Your task to perform on an android device: What is the recent news? Image 0: 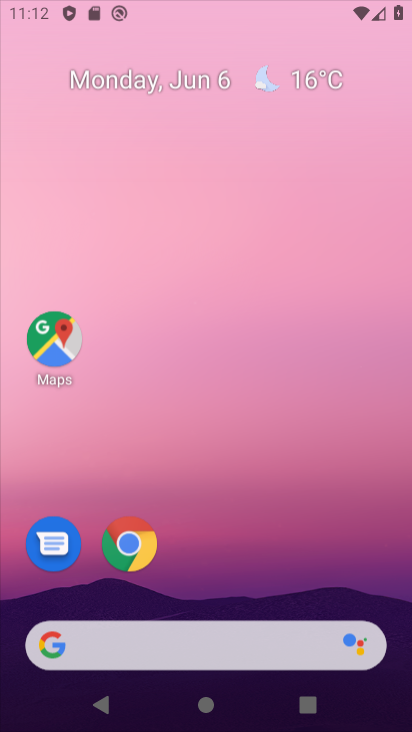
Step 0: press back button
Your task to perform on an android device: What is the recent news? Image 1: 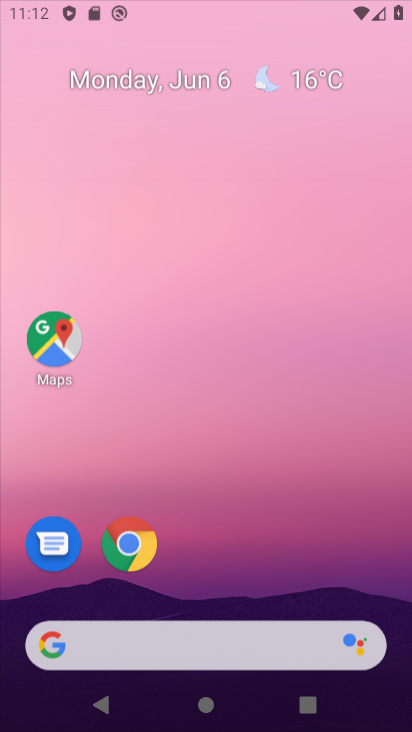
Step 1: click (340, 110)
Your task to perform on an android device: What is the recent news? Image 2: 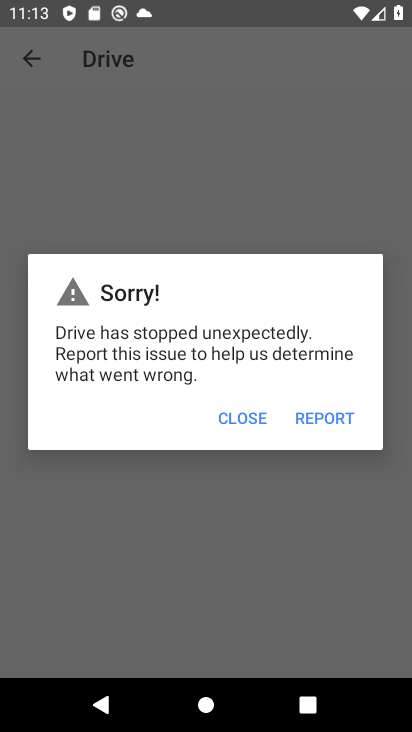
Step 2: press back button
Your task to perform on an android device: What is the recent news? Image 3: 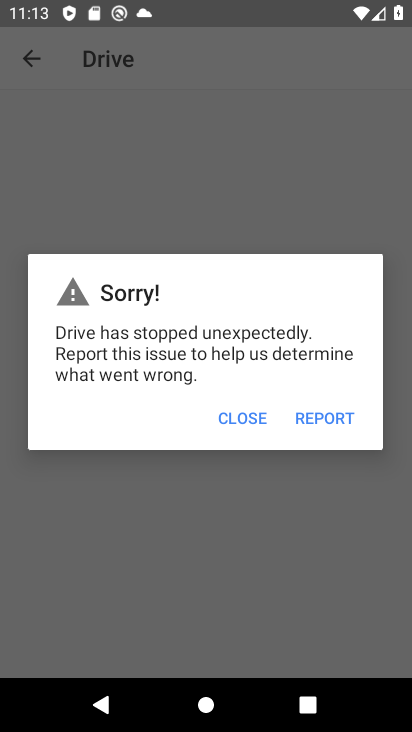
Step 3: press home button
Your task to perform on an android device: What is the recent news? Image 4: 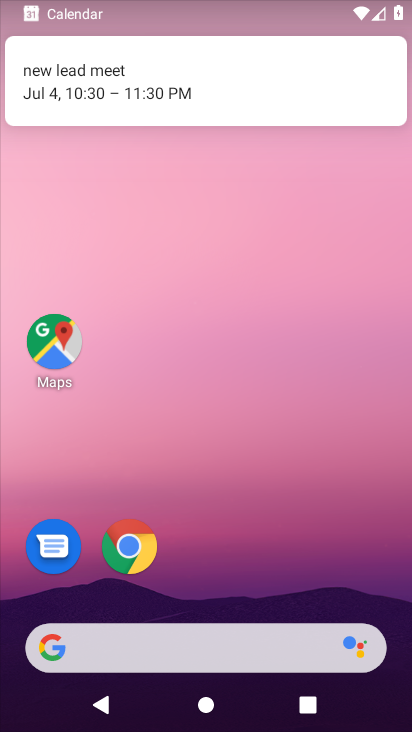
Step 4: click (158, 662)
Your task to perform on an android device: What is the recent news? Image 5: 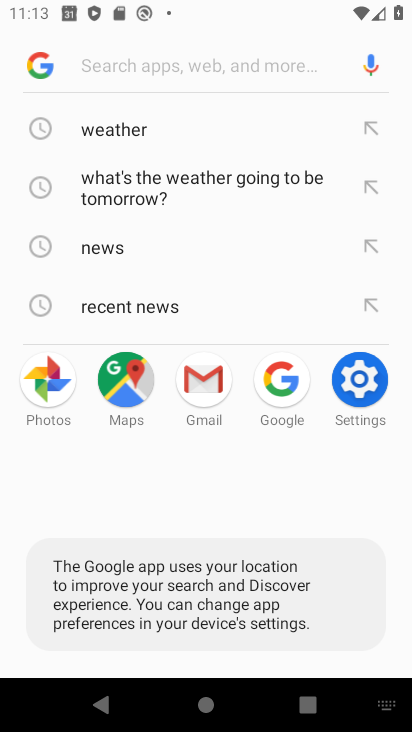
Step 5: drag from (128, 107) to (186, 2)
Your task to perform on an android device: What is the recent news? Image 6: 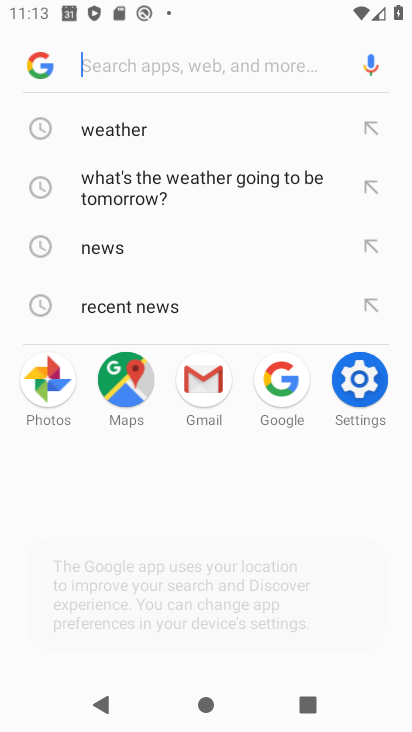
Step 6: click (112, 314)
Your task to perform on an android device: What is the recent news? Image 7: 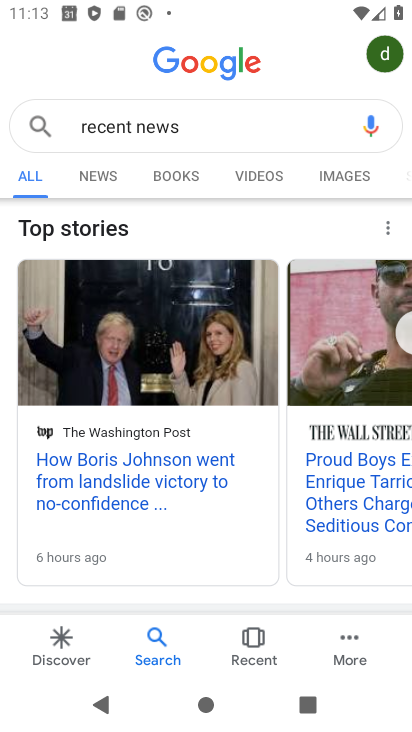
Step 7: task complete